Your task to perform on an android device: add a contact in the contacts app Image 0: 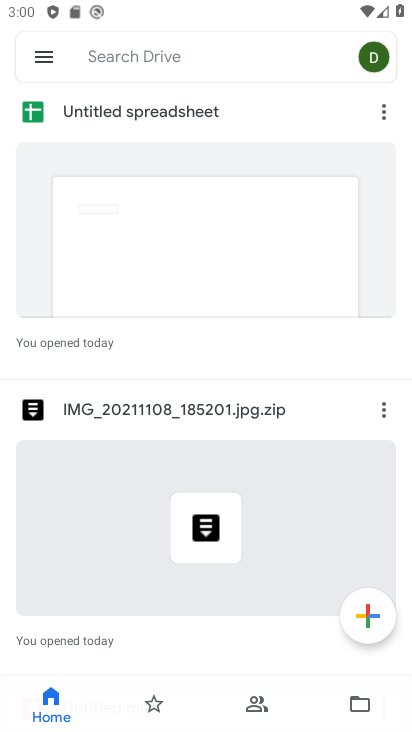
Step 0: press home button
Your task to perform on an android device: add a contact in the contacts app Image 1: 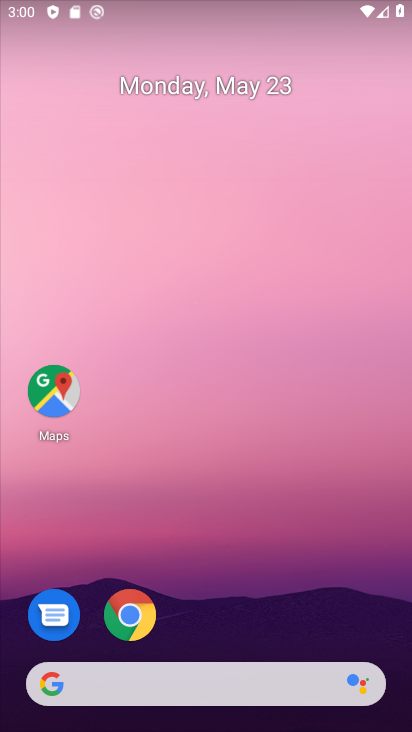
Step 1: drag from (252, 600) to (236, 265)
Your task to perform on an android device: add a contact in the contacts app Image 2: 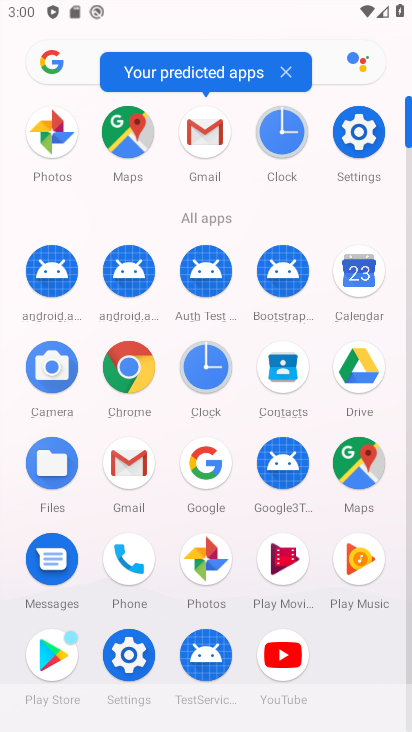
Step 2: click (143, 549)
Your task to perform on an android device: add a contact in the contacts app Image 3: 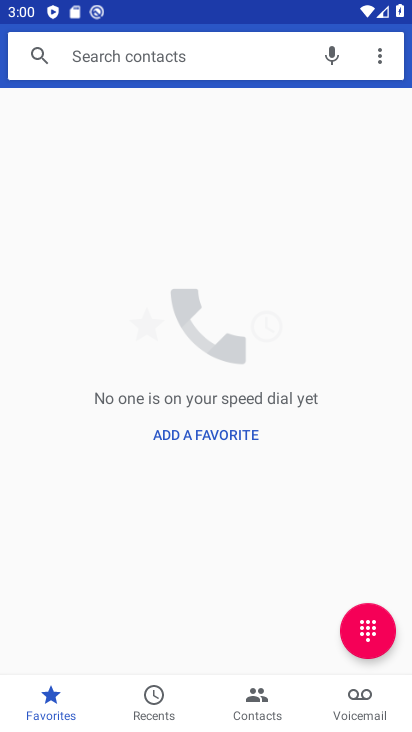
Step 3: click (218, 421)
Your task to perform on an android device: add a contact in the contacts app Image 4: 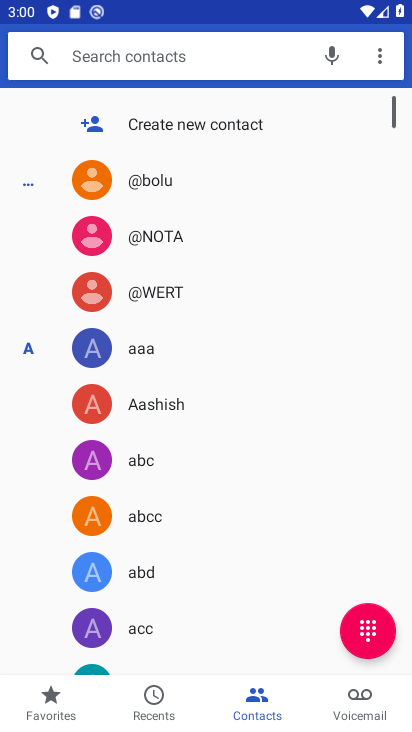
Step 4: click (170, 129)
Your task to perform on an android device: add a contact in the contacts app Image 5: 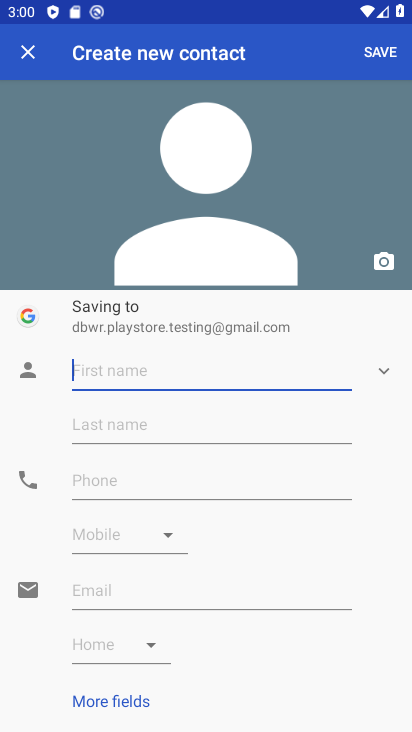
Step 5: click (202, 380)
Your task to perform on an android device: add a contact in the contacts app Image 6: 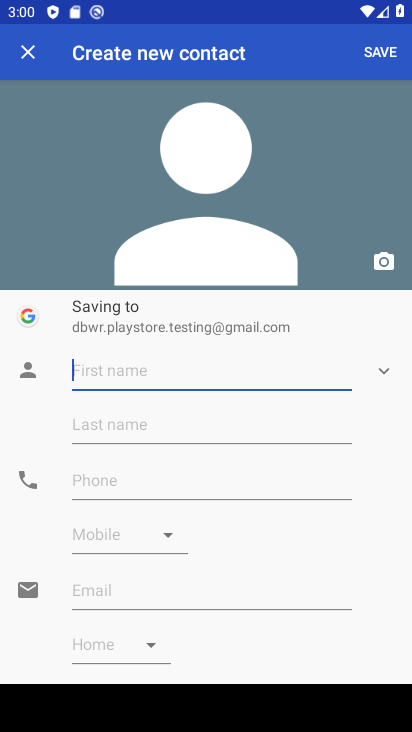
Step 6: type "ffffffffff"
Your task to perform on an android device: add a contact in the contacts app Image 7: 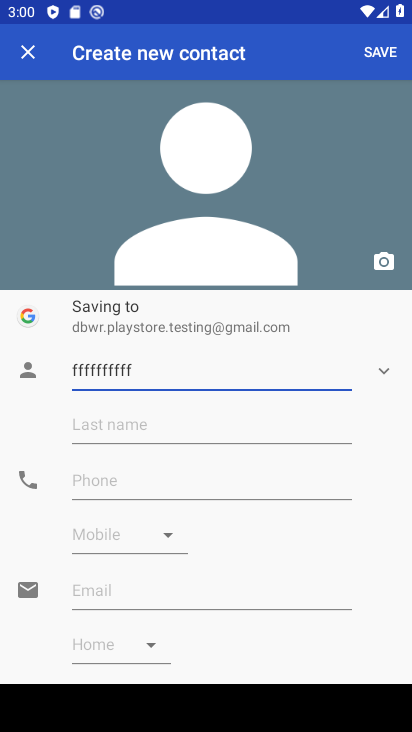
Step 7: click (162, 476)
Your task to perform on an android device: add a contact in the contacts app Image 8: 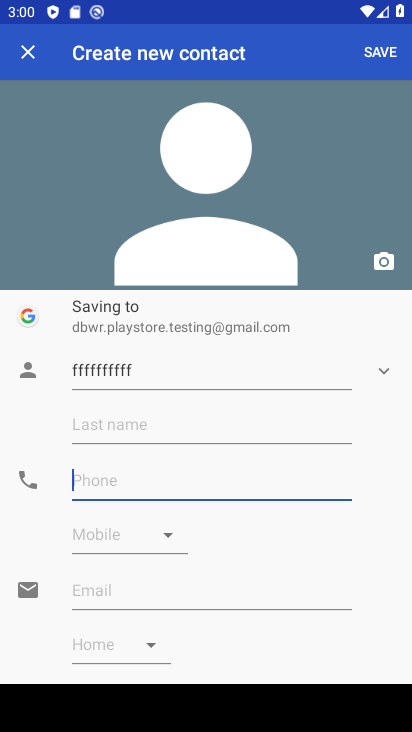
Step 8: type "88888888"
Your task to perform on an android device: add a contact in the contacts app Image 9: 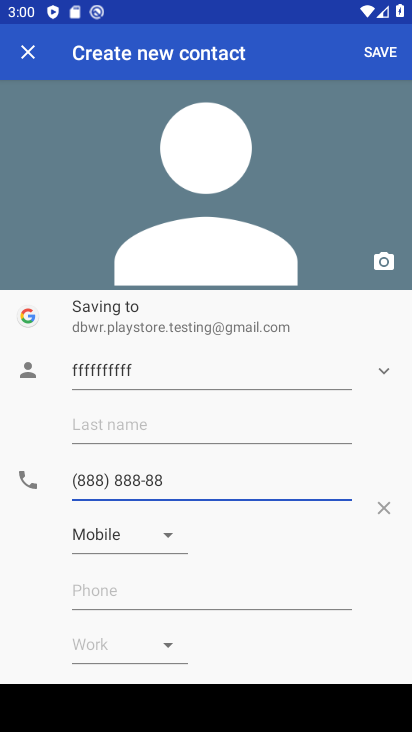
Step 9: click (390, 51)
Your task to perform on an android device: add a contact in the contacts app Image 10: 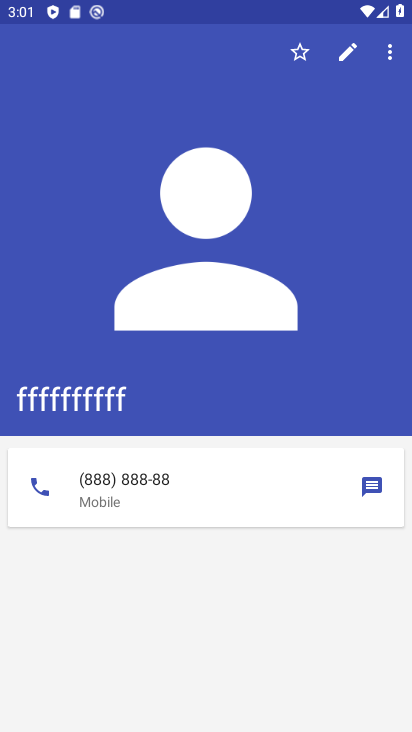
Step 10: task complete